Your task to perform on an android device: What's on my calendar tomorrow? Image 0: 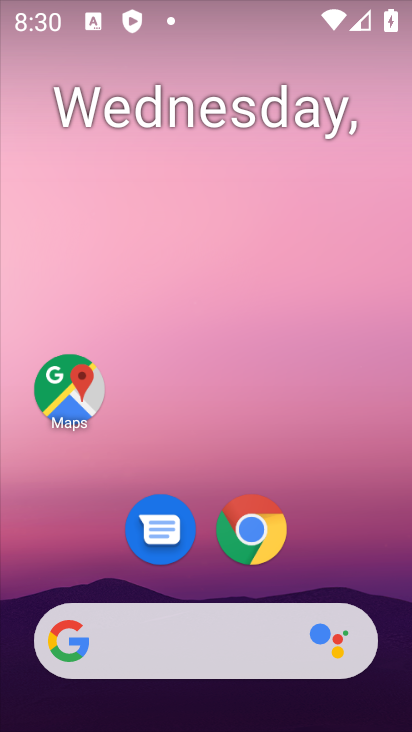
Step 0: drag from (207, 497) to (248, 114)
Your task to perform on an android device: What's on my calendar tomorrow? Image 1: 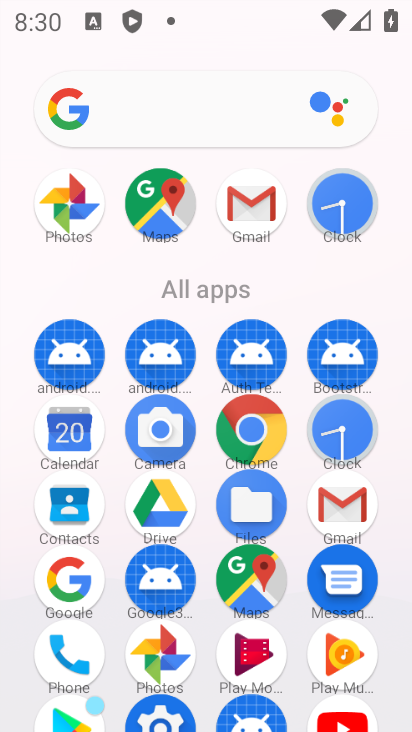
Step 1: click (73, 440)
Your task to perform on an android device: What's on my calendar tomorrow? Image 2: 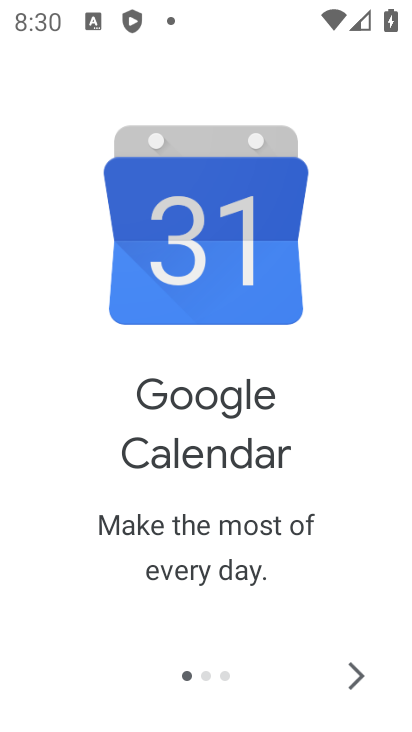
Step 2: click (359, 675)
Your task to perform on an android device: What's on my calendar tomorrow? Image 3: 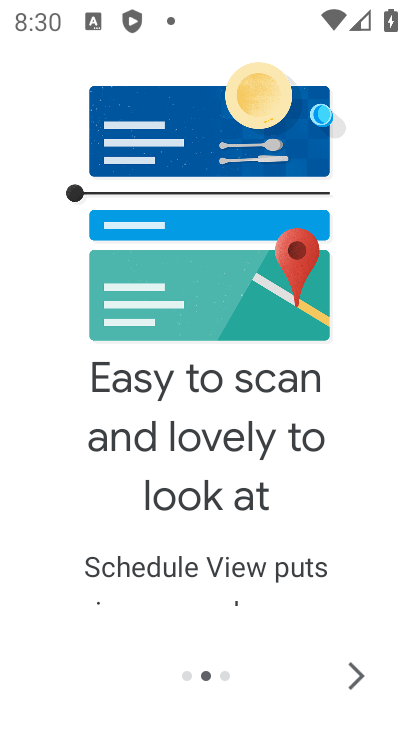
Step 3: click (359, 674)
Your task to perform on an android device: What's on my calendar tomorrow? Image 4: 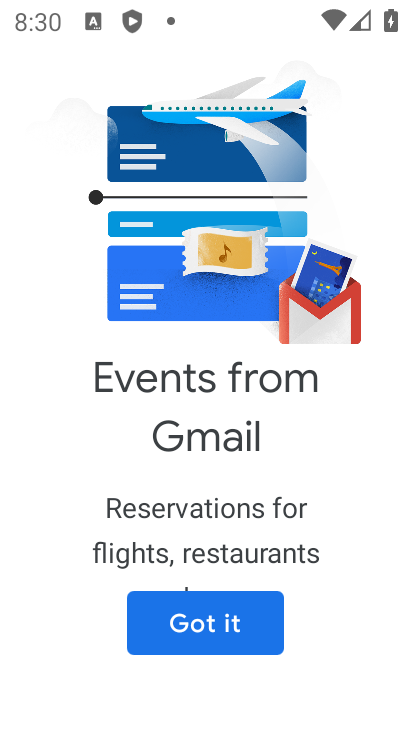
Step 4: click (220, 624)
Your task to perform on an android device: What's on my calendar tomorrow? Image 5: 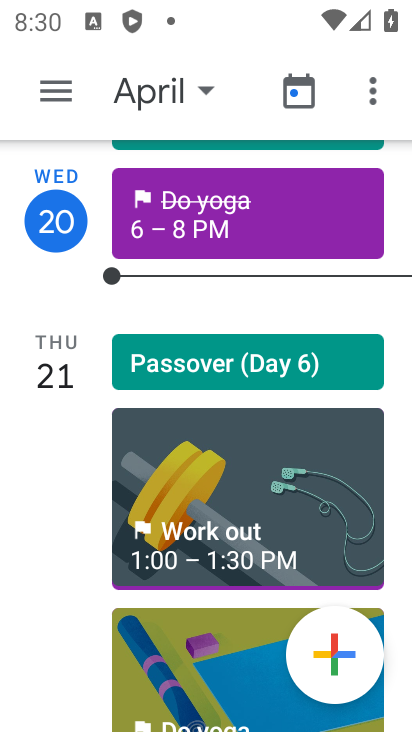
Step 5: click (172, 101)
Your task to perform on an android device: What's on my calendar tomorrow? Image 6: 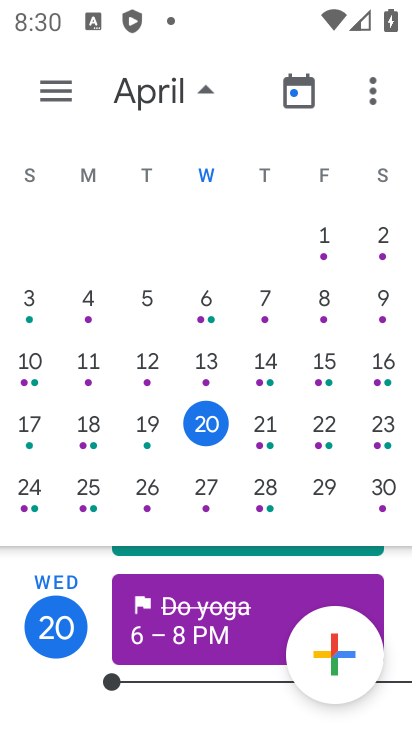
Step 6: click (272, 430)
Your task to perform on an android device: What's on my calendar tomorrow? Image 7: 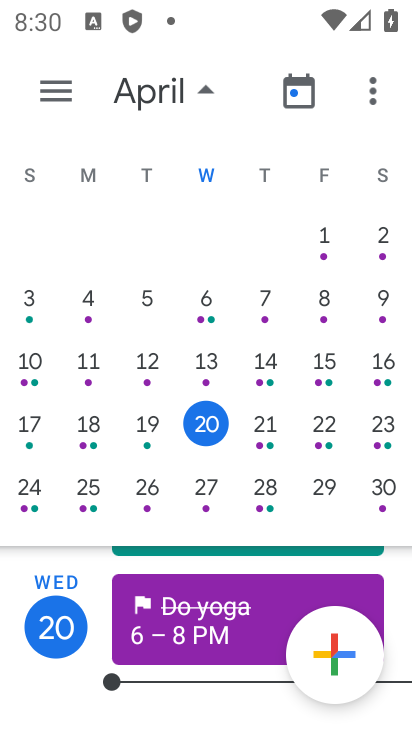
Step 7: click (258, 421)
Your task to perform on an android device: What's on my calendar tomorrow? Image 8: 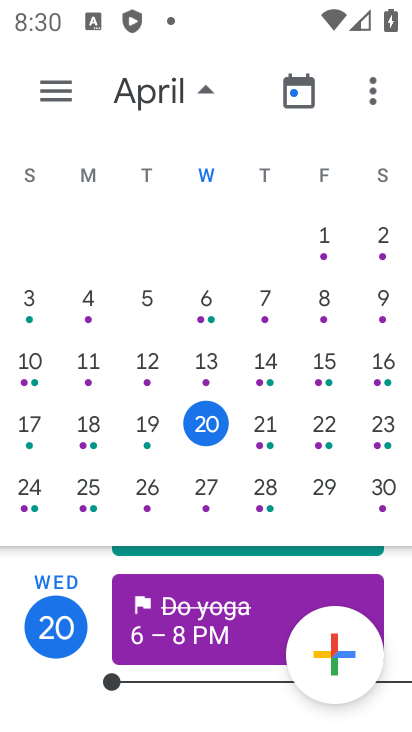
Step 8: click (269, 437)
Your task to perform on an android device: What's on my calendar tomorrow? Image 9: 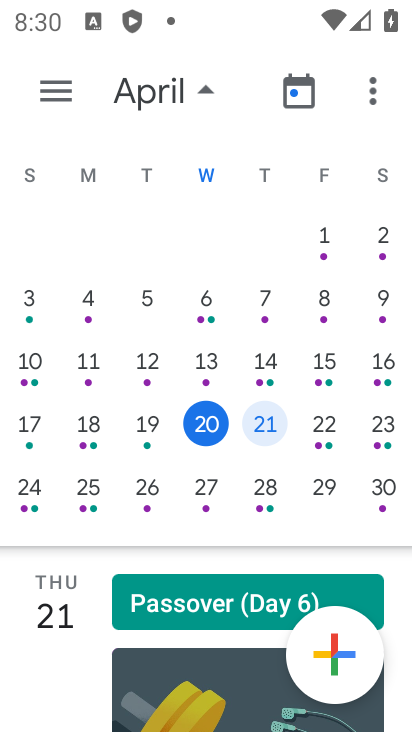
Step 9: task complete